Your task to perform on an android device: toggle notifications settings in the gmail app Image 0: 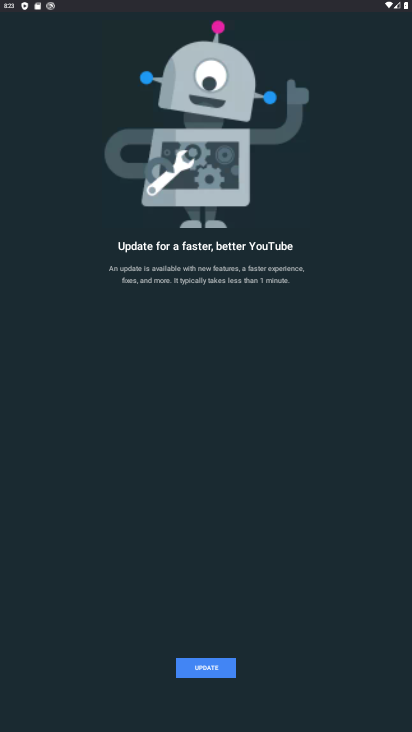
Step 0: press home button
Your task to perform on an android device: toggle notifications settings in the gmail app Image 1: 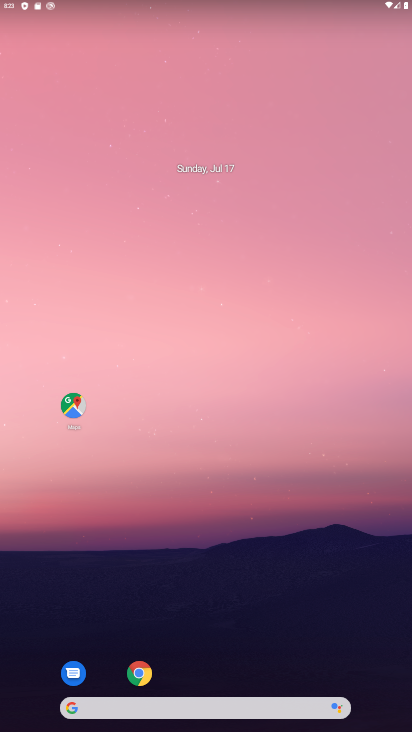
Step 1: drag from (174, 512) to (130, 73)
Your task to perform on an android device: toggle notifications settings in the gmail app Image 2: 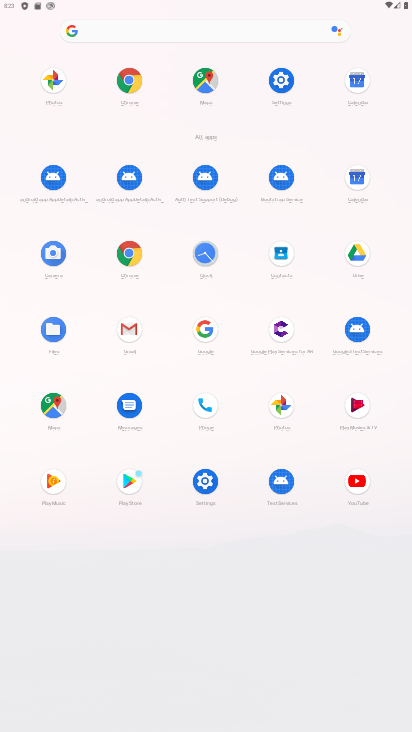
Step 2: click (123, 312)
Your task to perform on an android device: toggle notifications settings in the gmail app Image 3: 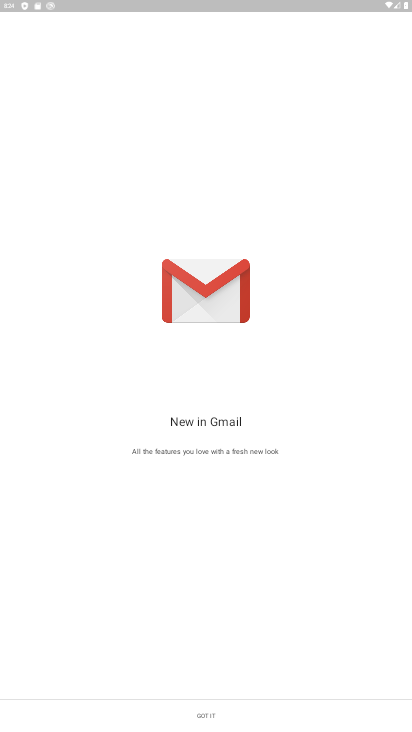
Step 3: click (213, 698)
Your task to perform on an android device: toggle notifications settings in the gmail app Image 4: 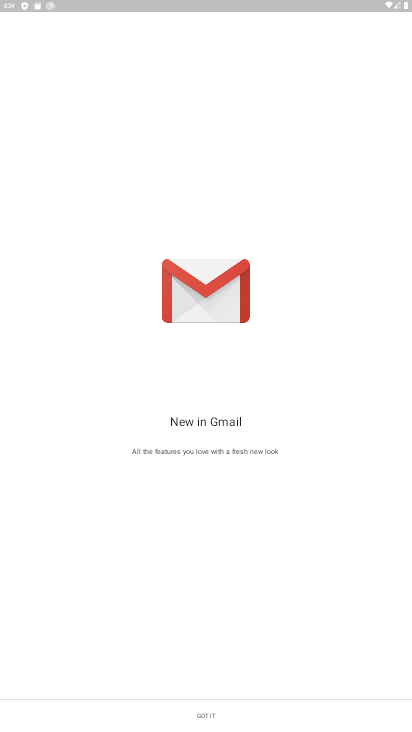
Step 4: click (234, 705)
Your task to perform on an android device: toggle notifications settings in the gmail app Image 5: 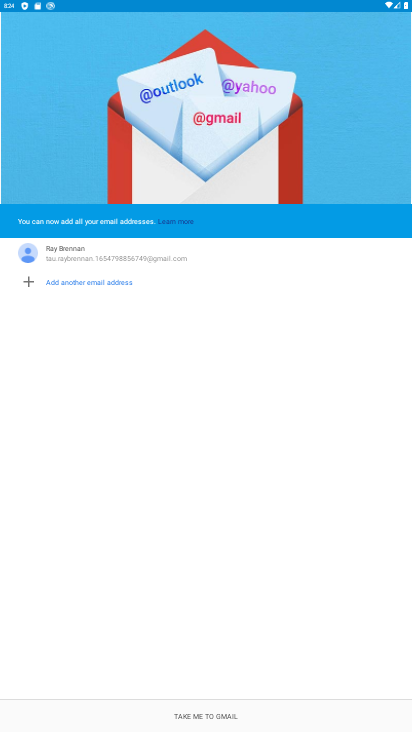
Step 5: click (198, 714)
Your task to perform on an android device: toggle notifications settings in the gmail app Image 6: 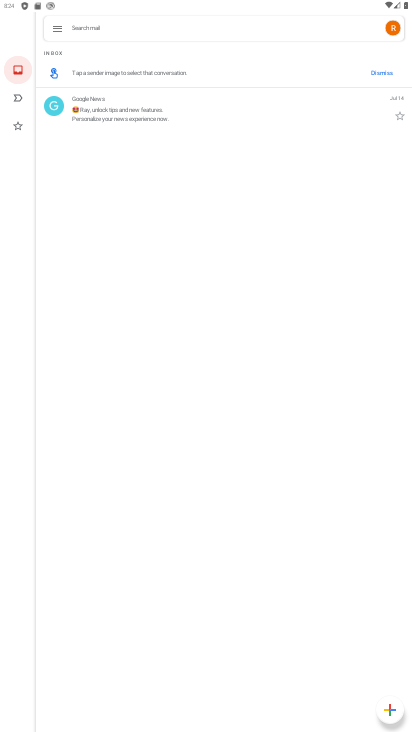
Step 6: click (49, 28)
Your task to perform on an android device: toggle notifications settings in the gmail app Image 7: 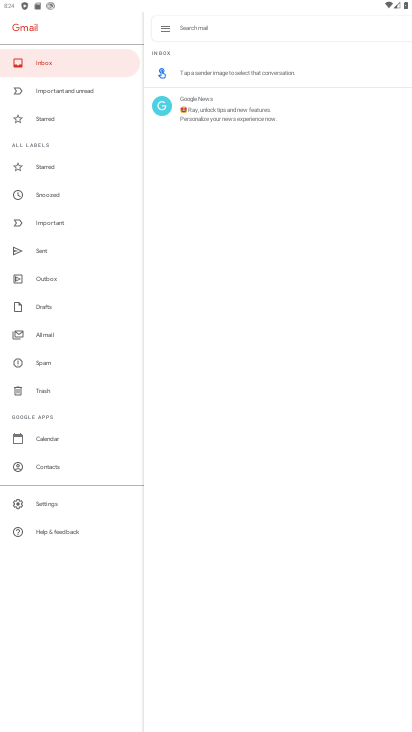
Step 7: click (51, 502)
Your task to perform on an android device: toggle notifications settings in the gmail app Image 8: 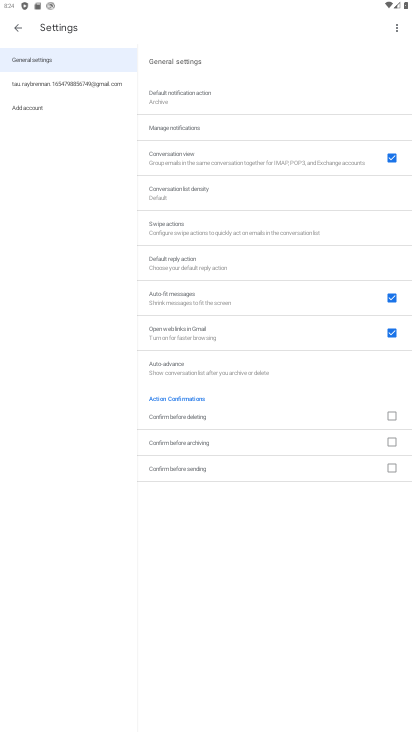
Step 8: click (74, 82)
Your task to perform on an android device: toggle notifications settings in the gmail app Image 9: 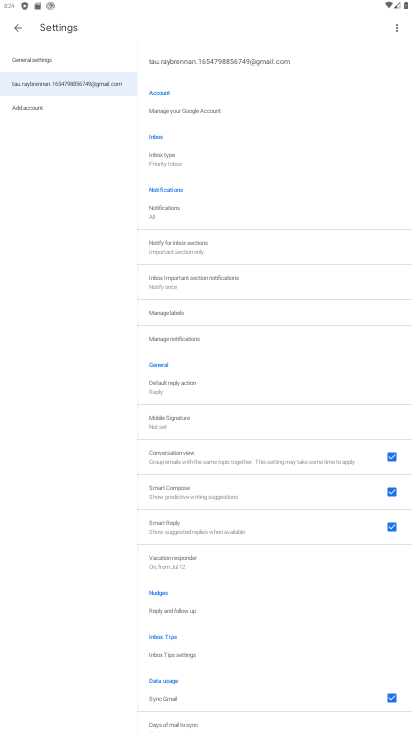
Step 9: click (202, 335)
Your task to perform on an android device: toggle notifications settings in the gmail app Image 10: 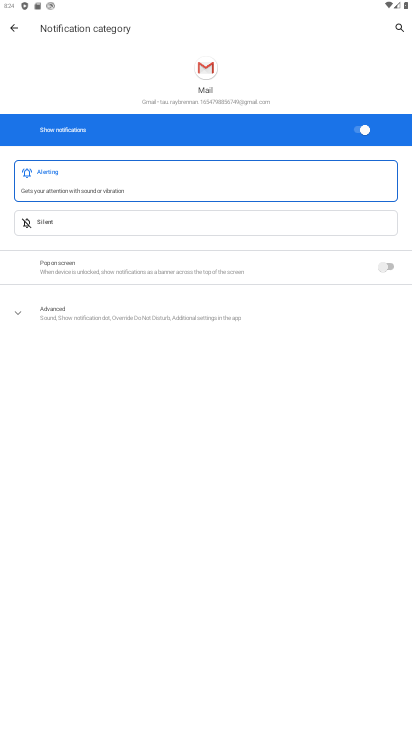
Step 10: click (361, 132)
Your task to perform on an android device: toggle notifications settings in the gmail app Image 11: 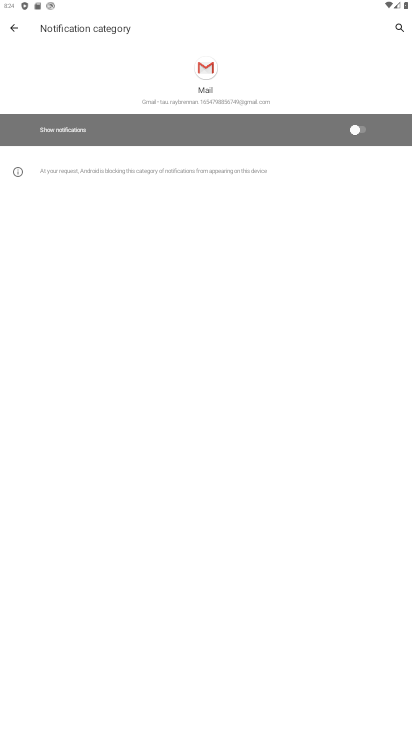
Step 11: task complete